Your task to perform on an android device: Open display settings Image 0: 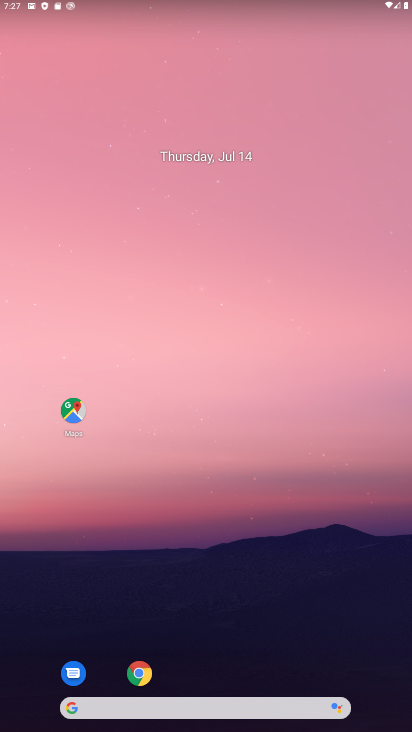
Step 0: drag from (204, 493) to (355, 21)
Your task to perform on an android device: Open display settings Image 1: 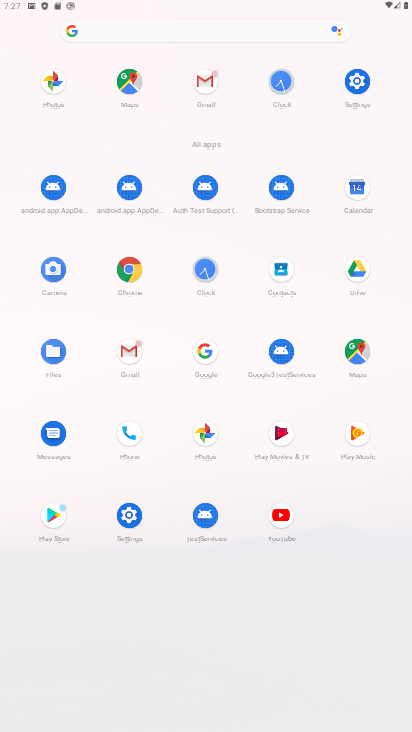
Step 1: drag from (181, 670) to (273, 28)
Your task to perform on an android device: Open display settings Image 2: 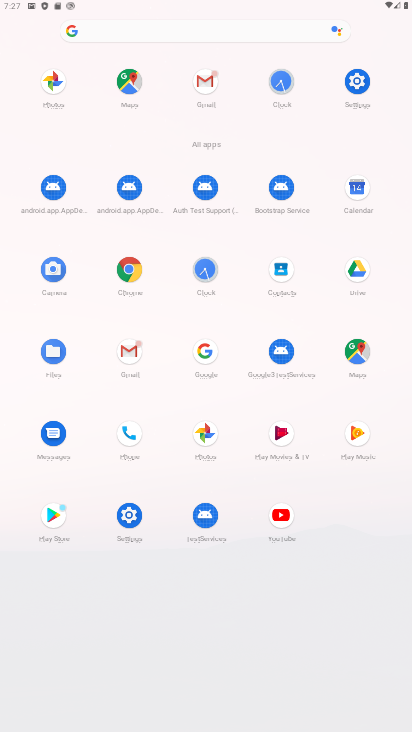
Step 2: click (127, 511)
Your task to perform on an android device: Open display settings Image 3: 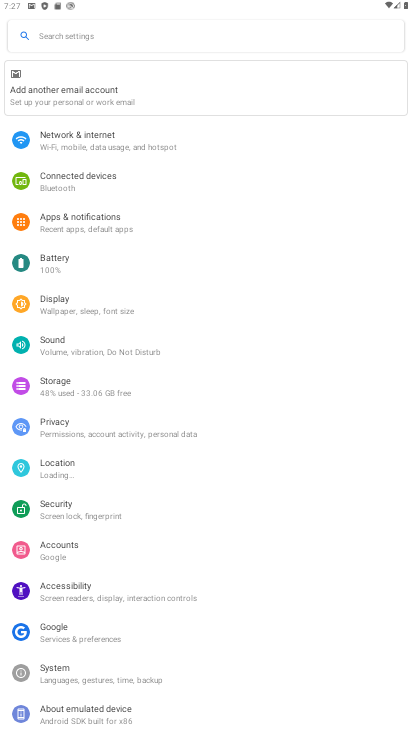
Step 3: click (63, 308)
Your task to perform on an android device: Open display settings Image 4: 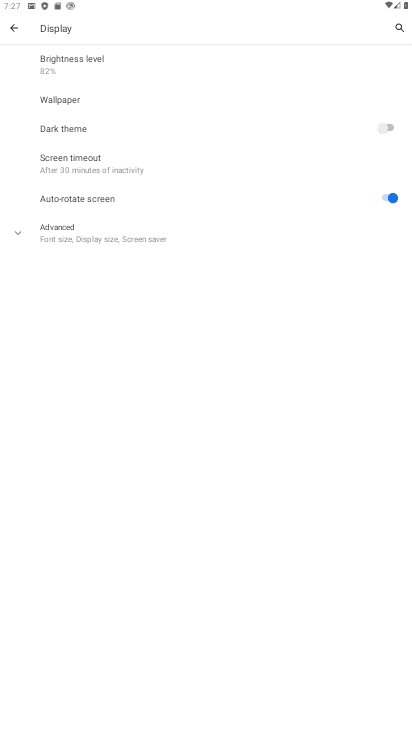
Step 4: task complete